Your task to perform on an android device: check the backup settings in the google photos Image 0: 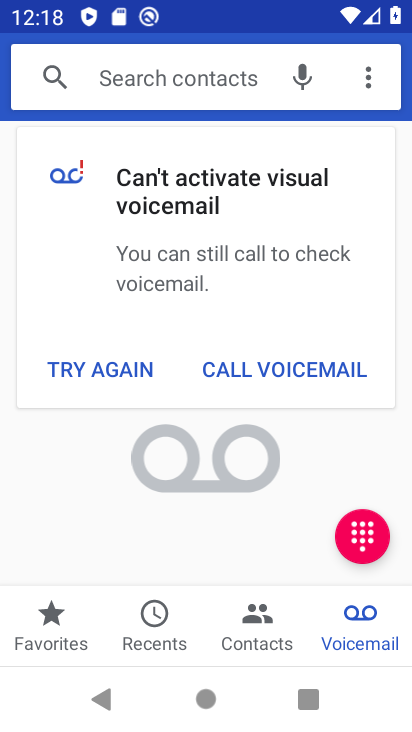
Step 0: press home button
Your task to perform on an android device: check the backup settings in the google photos Image 1: 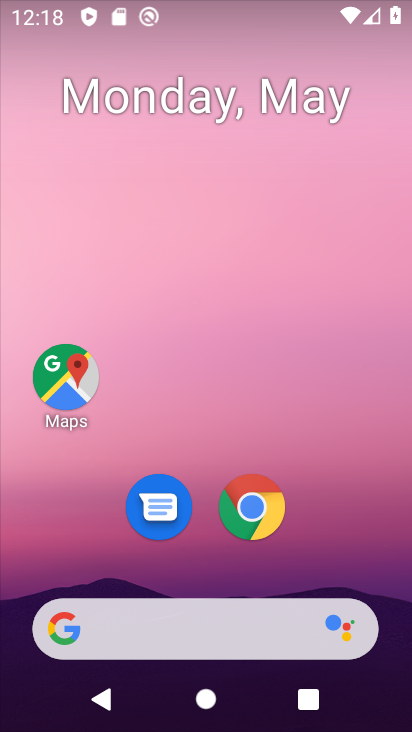
Step 1: drag from (226, 725) to (298, 13)
Your task to perform on an android device: check the backup settings in the google photos Image 2: 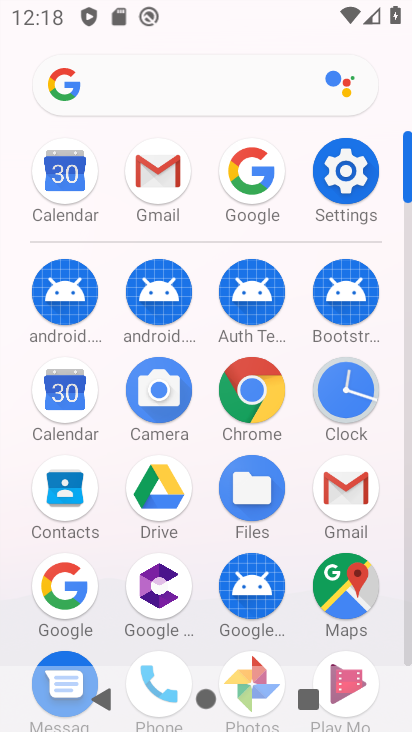
Step 2: click (261, 668)
Your task to perform on an android device: check the backup settings in the google photos Image 3: 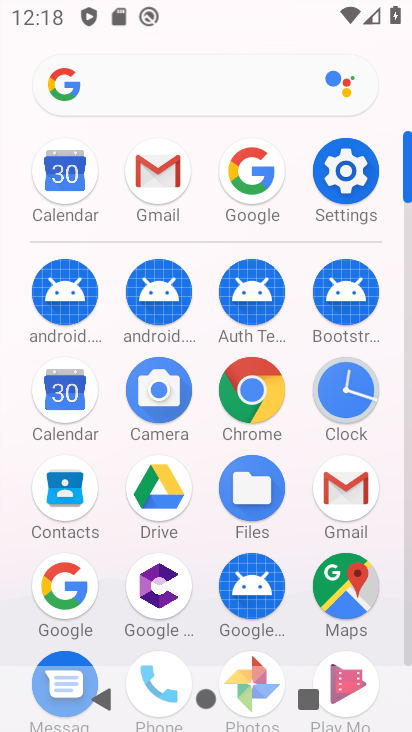
Step 3: click (253, 666)
Your task to perform on an android device: check the backup settings in the google photos Image 4: 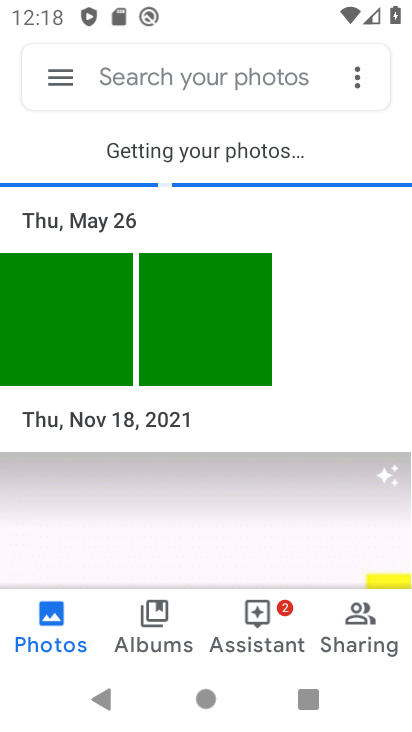
Step 4: click (61, 77)
Your task to perform on an android device: check the backup settings in the google photos Image 5: 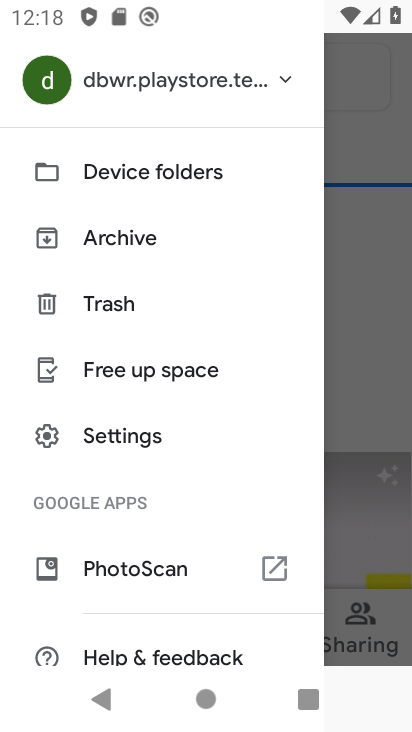
Step 5: click (113, 438)
Your task to perform on an android device: check the backup settings in the google photos Image 6: 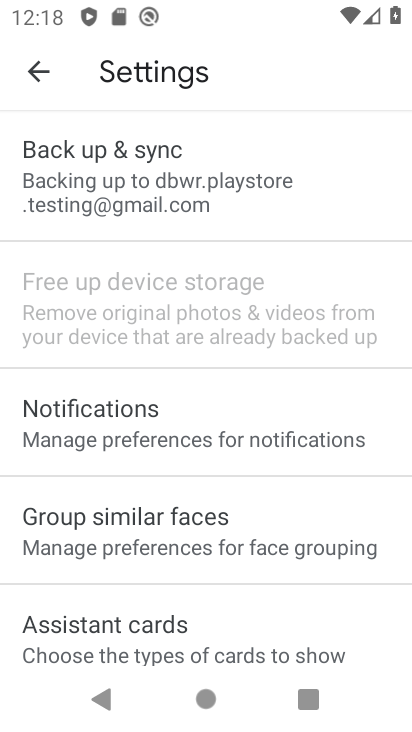
Step 6: click (106, 175)
Your task to perform on an android device: check the backup settings in the google photos Image 7: 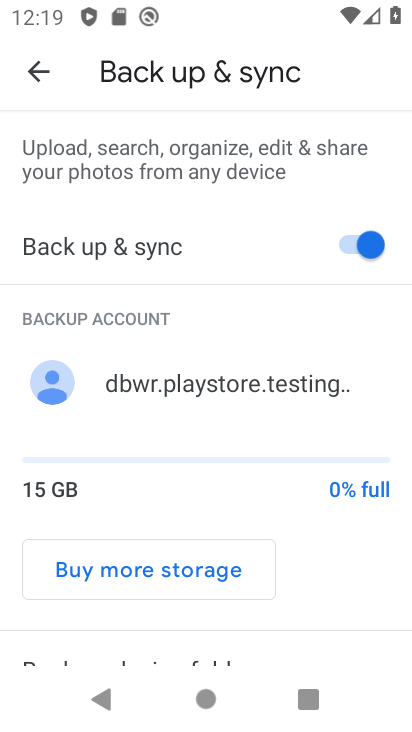
Step 7: task complete